Your task to perform on an android device: Empty the shopping cart on ebay. Search for "energizer triple a" on ebay, select the first entry, and add it to the cart. Image 0: 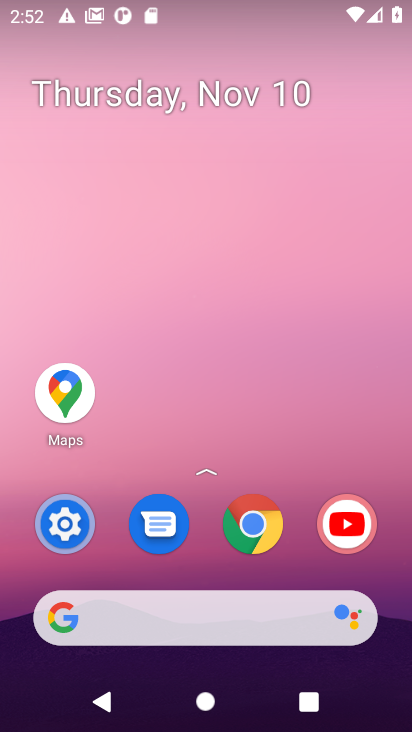
Step 0: click (247, 535)
Your task to perform on an android device: Empty the shopping cart on ebay. Search for "energizer triple a" on ebay, select the first entry, and add it to the cart. Image 1: 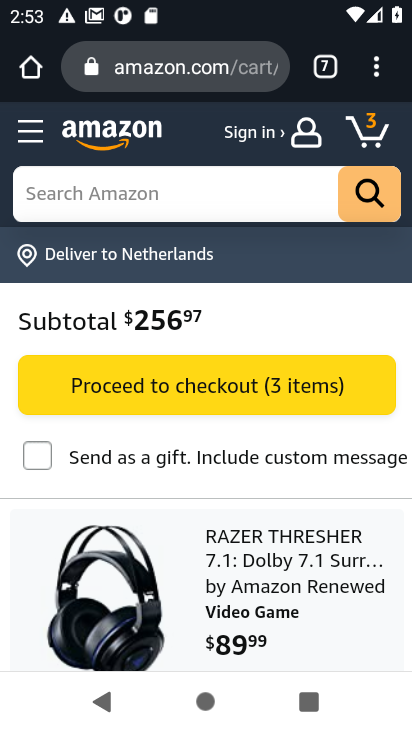
Step 1: click (332, 68)
Your task to perform on an android device: Empty the shopping cart on ebay. Search for "energizer triple a" on ebay, select the first entry, and add it to the cart. Image 2: 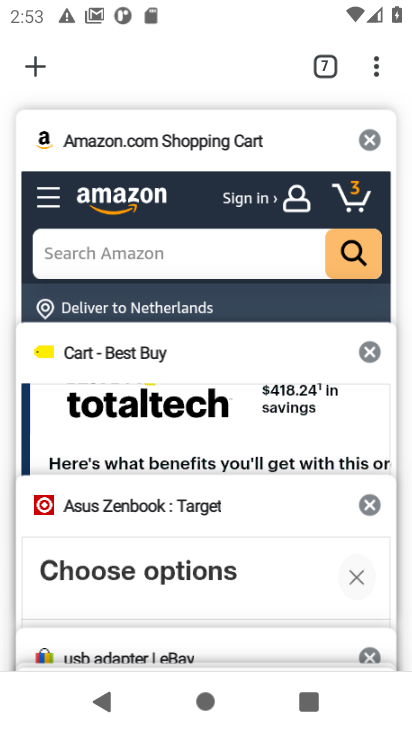
Step 2: click (149, 650)
Your task to perform on an android device: Empty the shopping cart on ebay. Search for "energizer triple a" on ebay, select the first entry, and add it to the cart. Image 3: 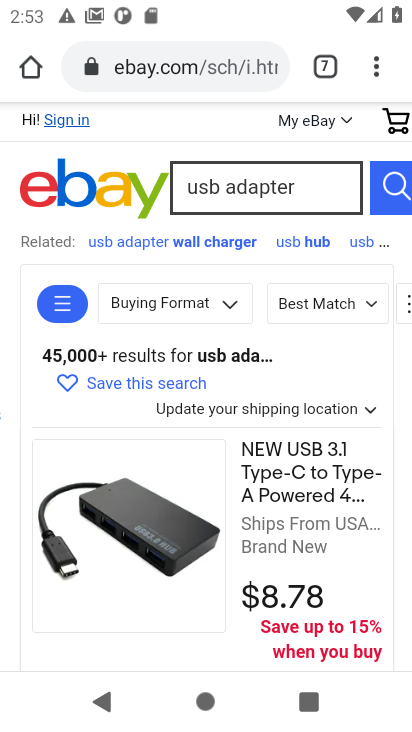
Step 3: click (291, 180)
Your task to perform on an android device: Empty the shopping cart on ebay. Search for "energizer triple a" on ebay, select the first entry, and add it to the cart. Image 4: 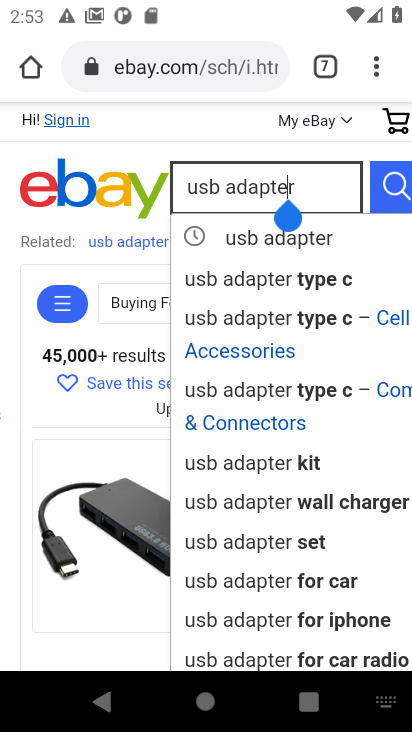
Step 4: click (323, 191)
Your task to perform on an android device: Empty the shopping cart on ebay. Search for "energizer triple a" on ebay, select the first entry, and add it to the cart. Image 5: 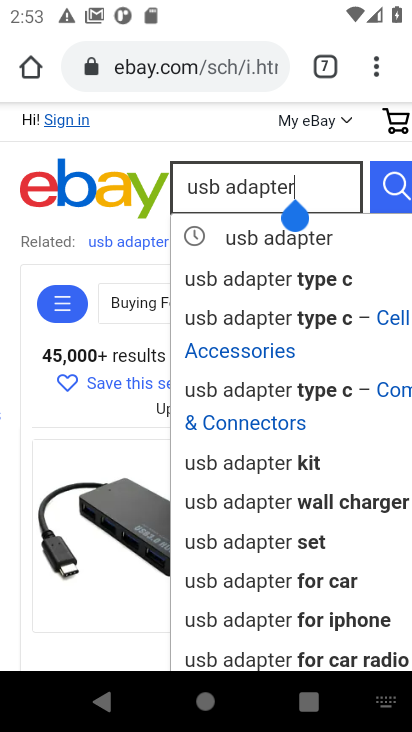
Step 5: task complete